Your task to perform on an android device: Open privacy settings Image 0: 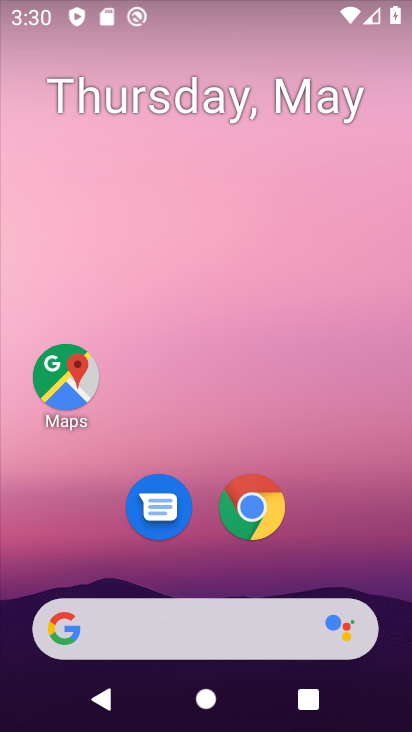
Step 0: drag from (327, 598) to (216, 62)
Your task to perform on an android device: Open privacy settings Image 1: 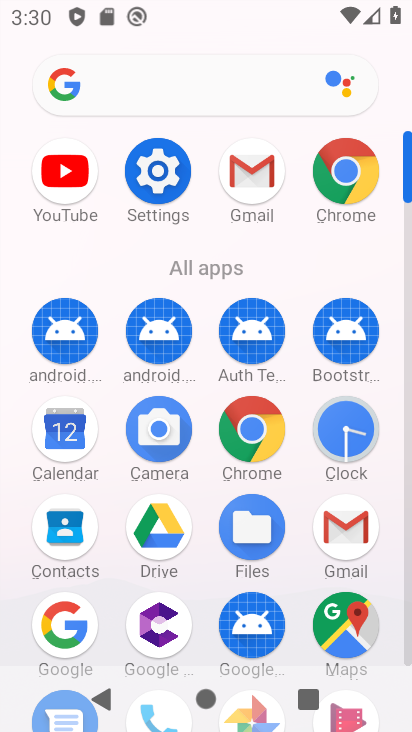
Step 1: click (156, 175)
Your task to perform on an android device: Open privacy settings Image 2: 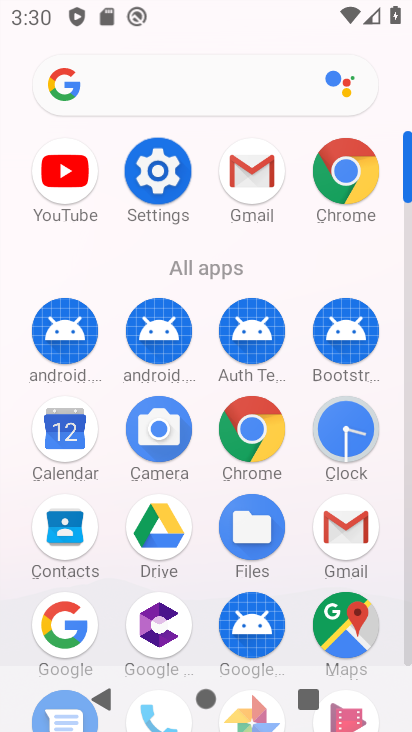
Step 2: click (154, 168)
Your task to perform on an android device: Open privacy settings Image 3: 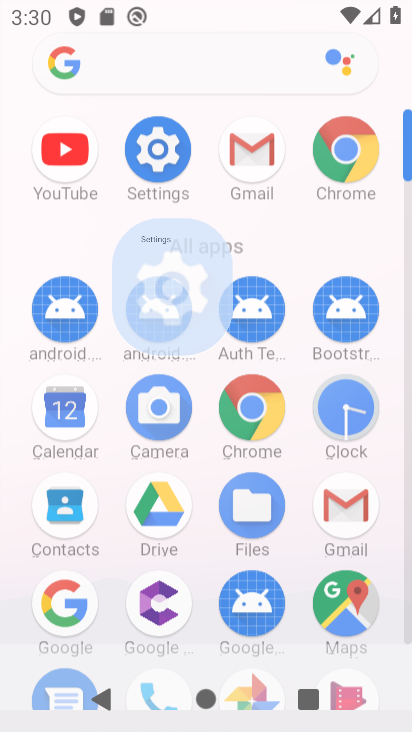
Step 3: click (148, 169)
Your task to perform on an android device: Open privacy settings Image 4: 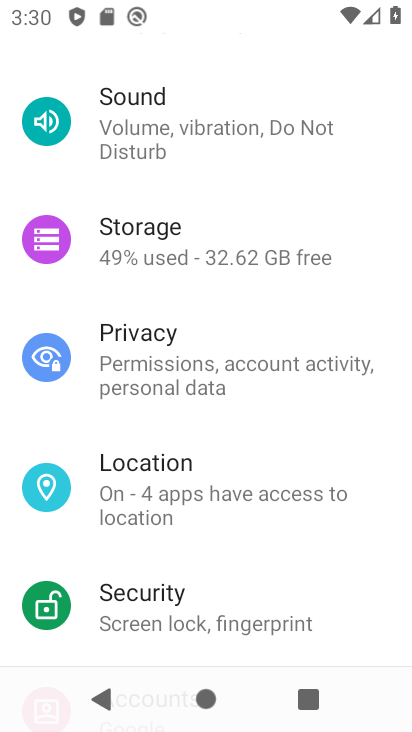
Step 4: click (146, 366)
Your task to perform on an android device: Open privacy settings Image 5: 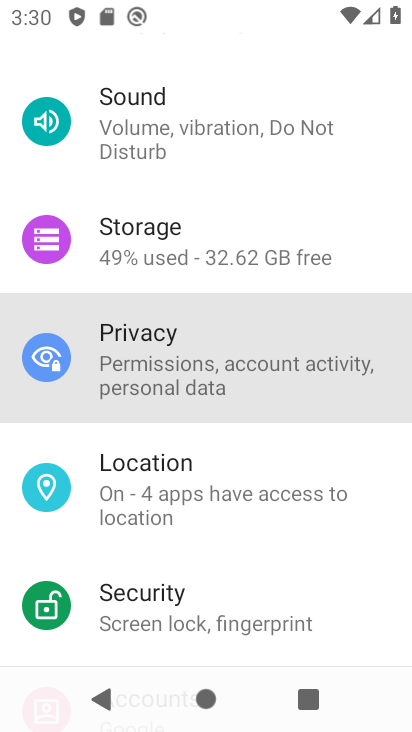
Step 5: click (146, 361)
Your task to perform on an android device: Open privacy settings Image 6: 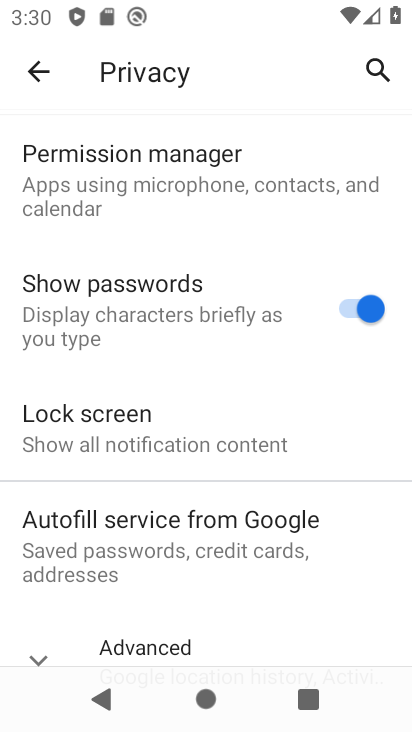
Step 6: task complete